Your task to perform on an android device: turn pop-ups off in chrome Image 0: 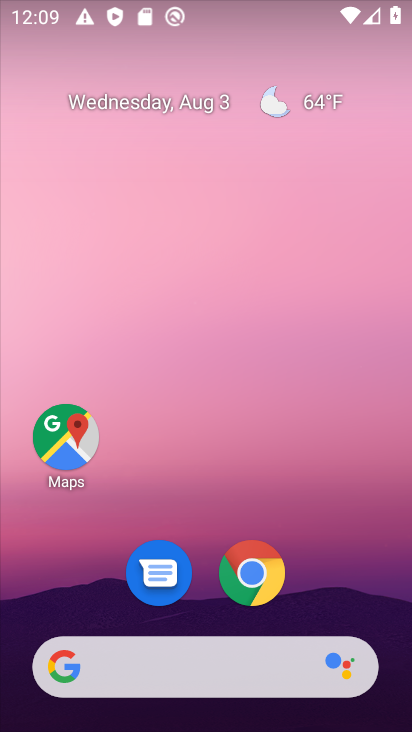
Step 0: drag from (158, 677) to (284, 13)
Your task to perform on an android device: turn pop-ups off in chrome Image 1: 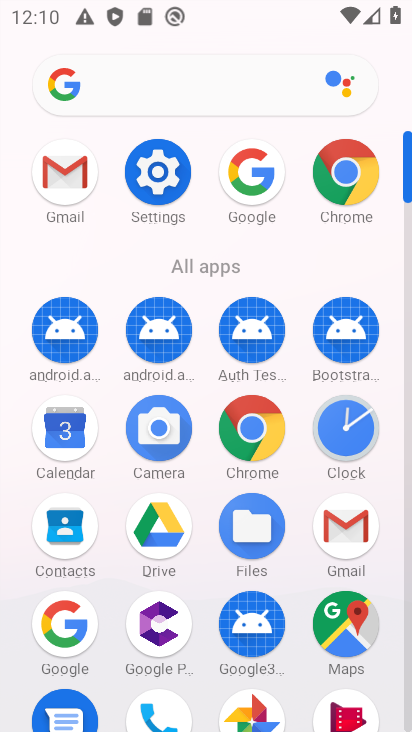
Step 1: click (336, 203)
Your task to perform on an android device: turn pop-ups off in chrome Image 2: 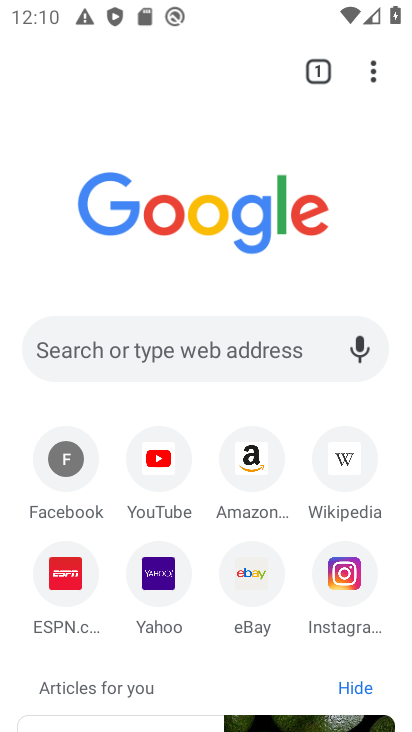
Step 2: click (378, 83)
Your task to perform on an android device: turn pop-ups off in chrome Image 3: 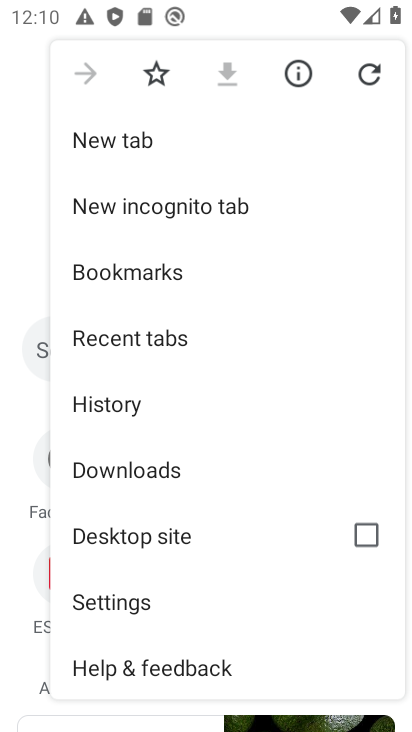
Step 3: click (173, 600)
Your task to perform on an android device: turn pop-ups off in chrome Image 4: 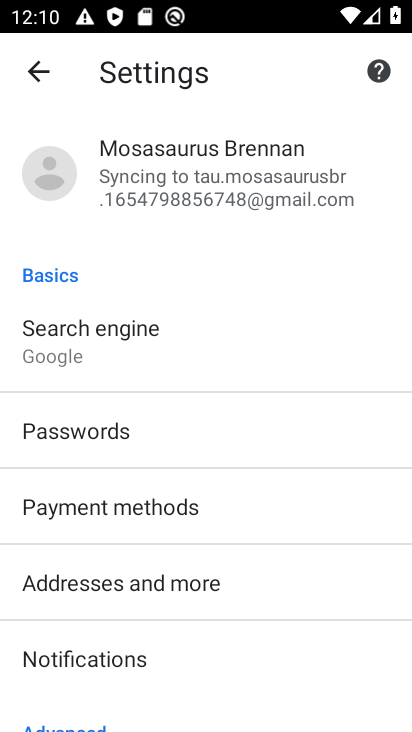
Step 4: drag from (306, 595) to (337, 208)
Your task to perform on an android device: turn pop-ups off in chrome Image 5: 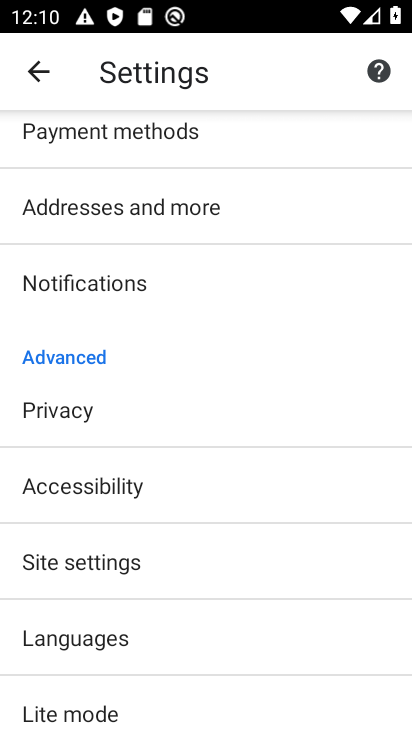
Step 5: click (154, 565)
Your task to perform on an android device: turn pop-ups off in chrome Image 6: 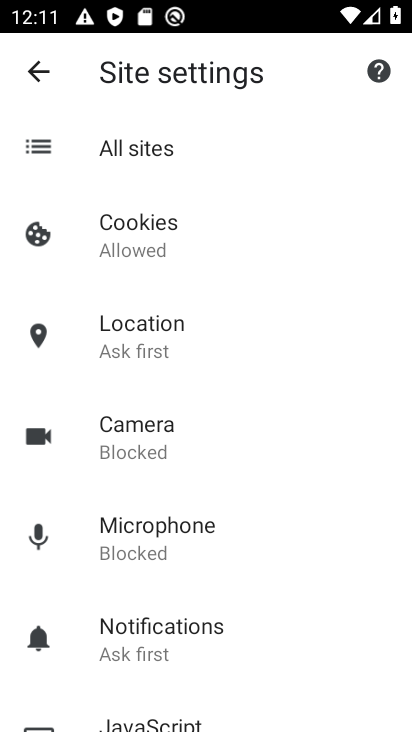
Step 6: click (199, 715)
Your task to perform on an android device: turn pop-ups off in chrome Image 7: 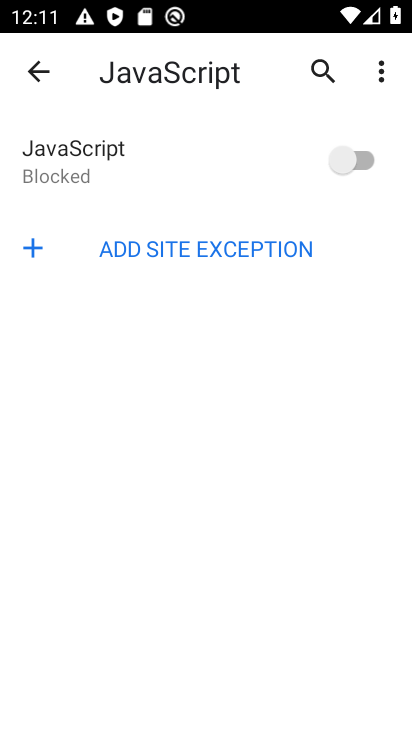
Step 7: task complete